Your task to perform on an android device: refresh tabs in the chrome app Image 0: 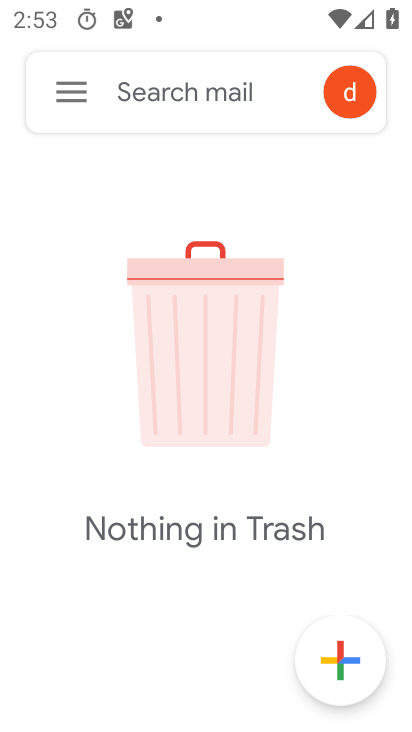
Step 0: press home button
Your task to perform on an android device: refresh tabs in the chrome app Image 1: 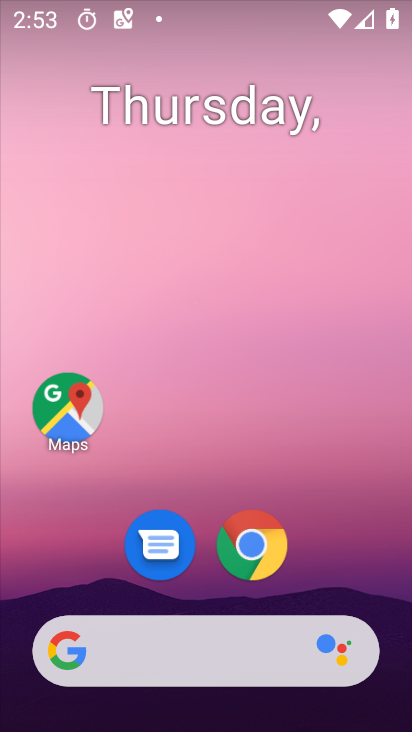
Step 1: click (252, 549)
Your task to perform on an android device: refresh tabs in the chrome app Image 2: 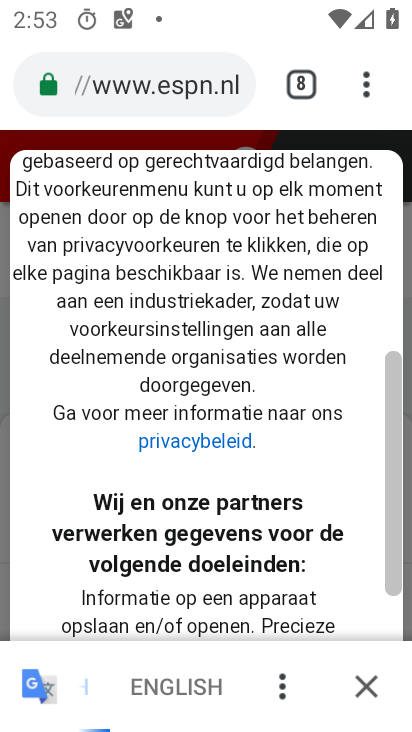
Step 2: click (364, 94)
Your task to perform on an android device: refresh tabs in the chrome app Image 3: 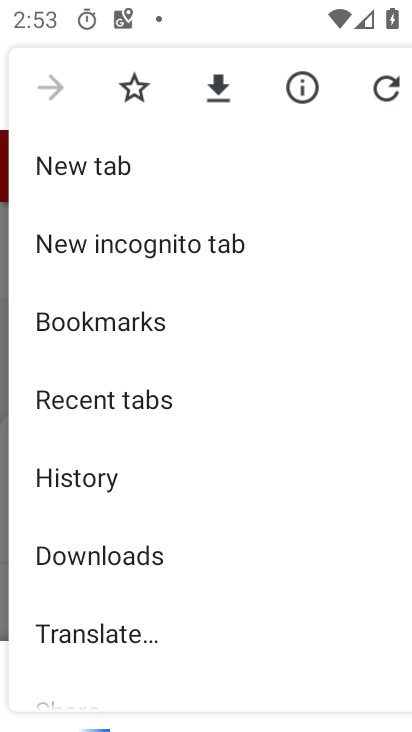
Step 3: click (383, 92)
Your task to perform on an android device: refresh tabs in the chrome app Image 4: 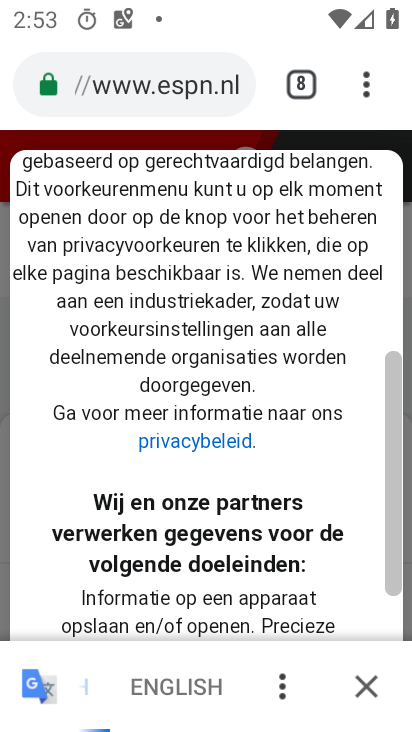
Step 4: task complete